Your task to perform on an android device: Open notification settings Image 0: 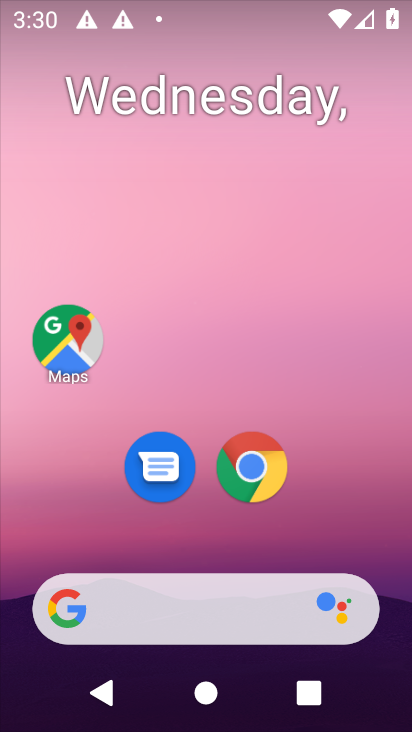
Step 0: drag from (27, 690) to (104, 327)
Your task to perform on an android device: Open notification settings Image 1: 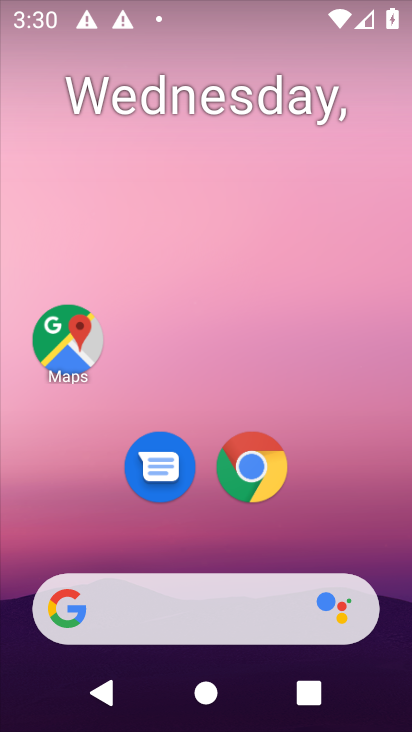
Step 1: drag from (48, 711) to (77, 115)
Your task to perform on an android device: Open notification settings Image 2: 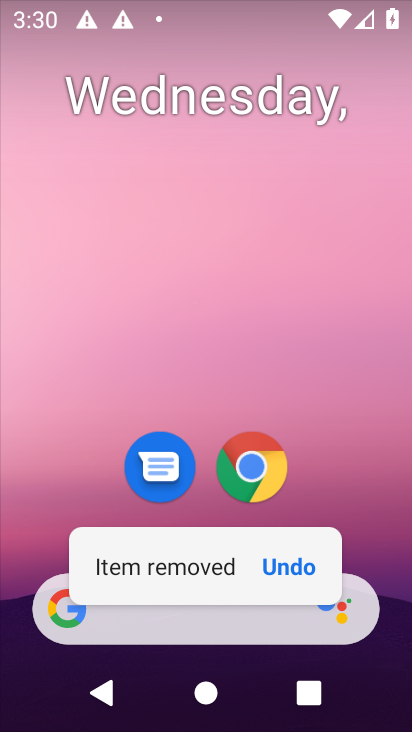
Step 2: drag from (25, 688) to (95, 323)
Your task to perform on an android device: Open notification settings Image 3: 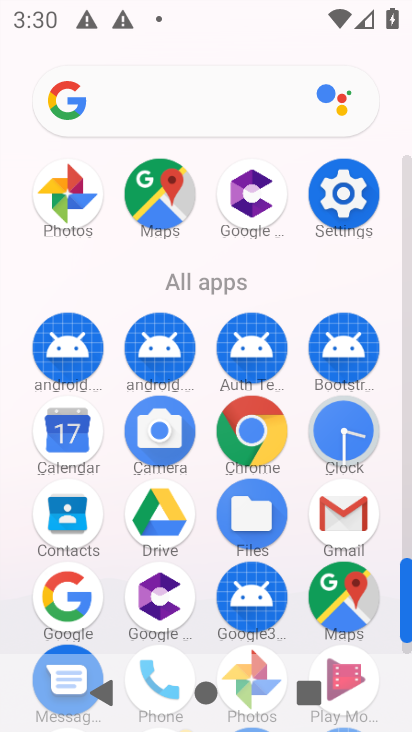
Step 3: click (362, 203)
Your task to perform on an android device: Open notification settings Image 4: 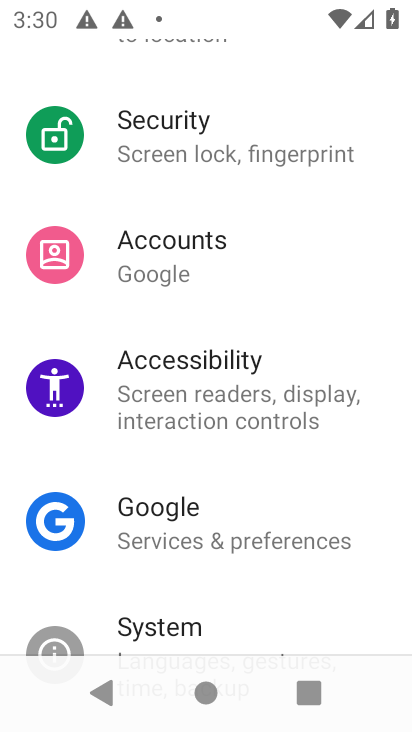
Step 4: drag from (368, 539) to (301, 165)
Your task to perform on an android device: Open notification settings Image 5: 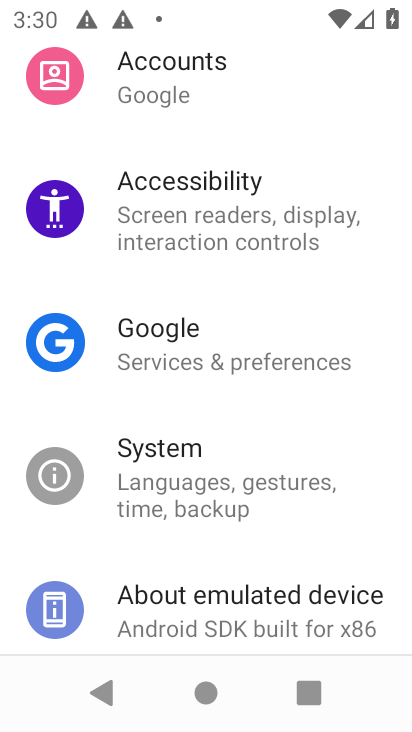
Step 5: drag from (314, 69) to (329, 705)
Your task to perform on an android device: Open notification settings Image 6: 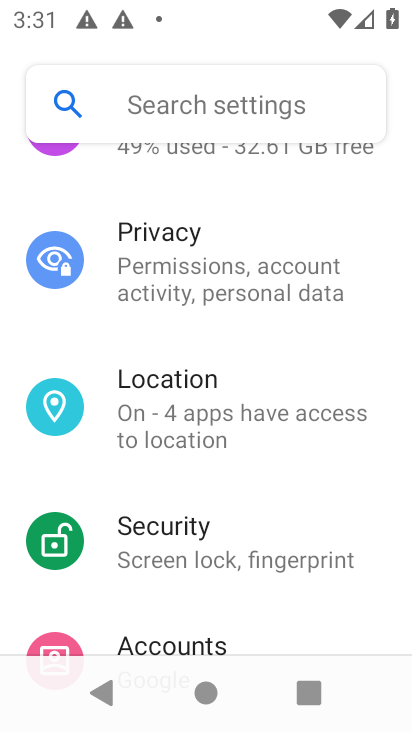
Step 6: drag from (358, 262) to (321, 681)
Your task to perform on an android device: Open notification settings Image 7: 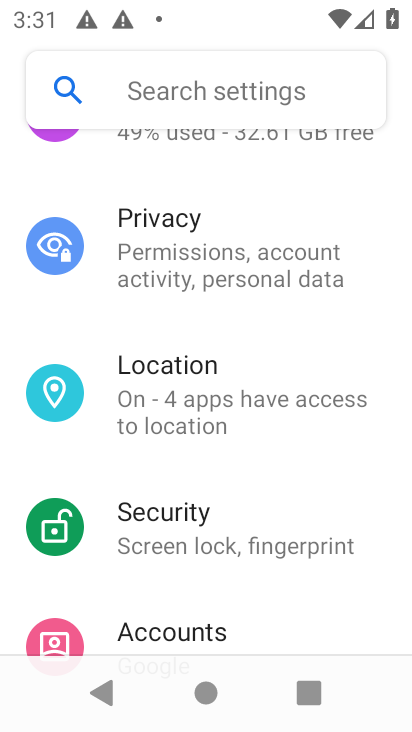
Step 7: drag from (332, 156) to (223, 714)
Your task to perform on an android device: Open notification settings Image 8: 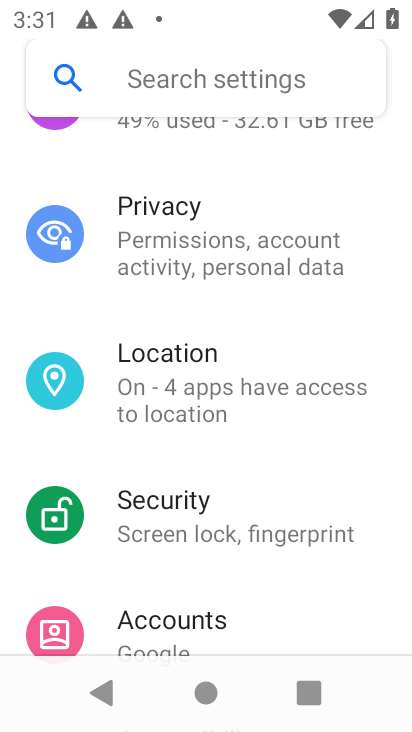
Step 8: drag from (278, 154) to (286, 706)
Your task to perform on an android device: Open notification settings Image 9: 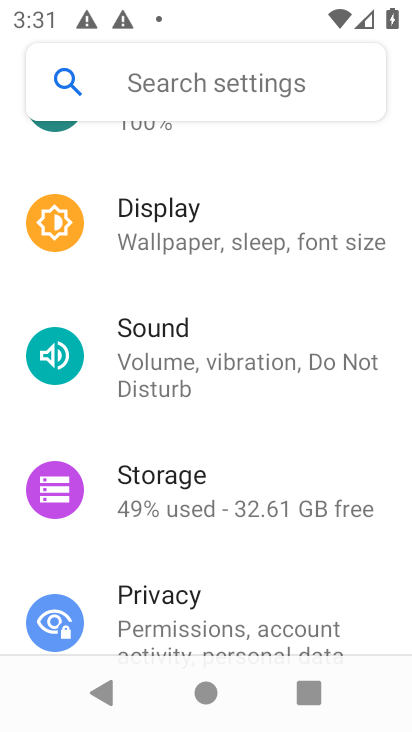
Step 9: drag from (280, 181) to (310, 716)
Your task to perform on an android device: Open notification settings Image 10: 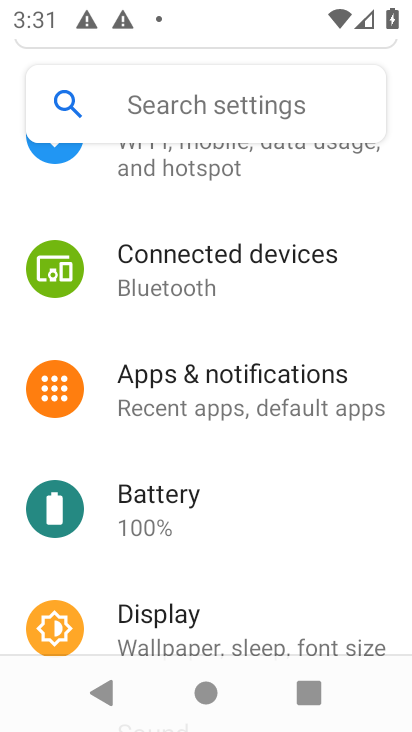
Step 10: drag from (343, 170) to (374, 725)
Your task to perform on an android device: Open notification settings Image 11: 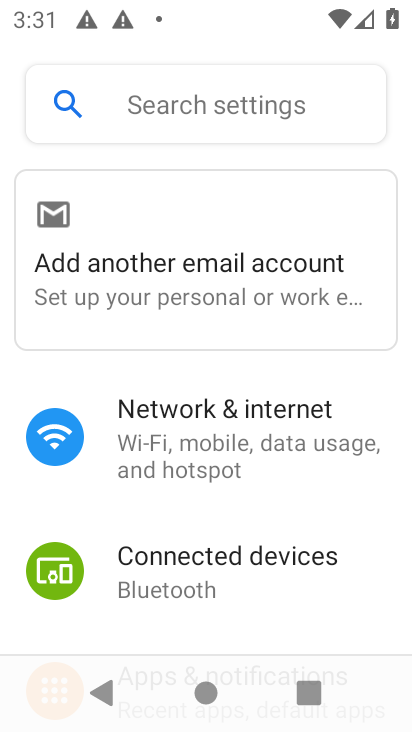
Step 11: drag from (290, 612) to (296, 252)
Your task to perform on an android device: Open notification settings Image 12: 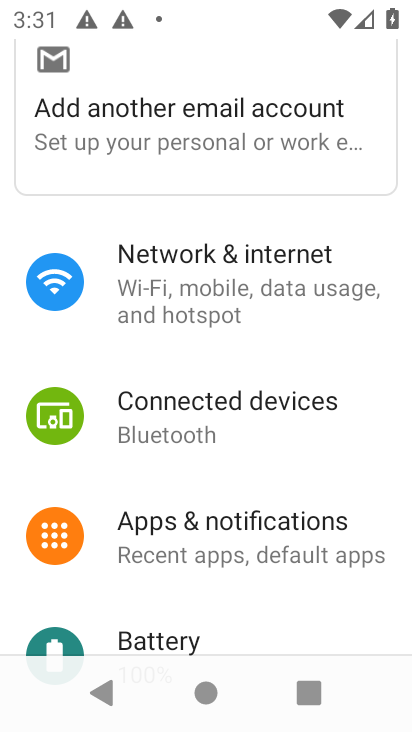
Step 12: click (265, 524)
Your task to perform on an android device: Open notification settings Image 13: 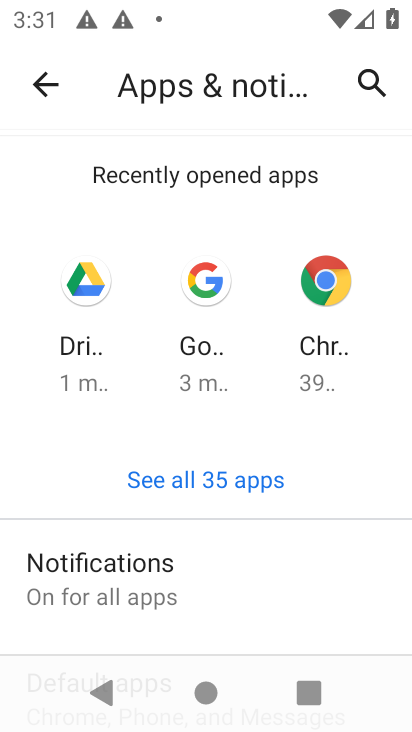
Step 13: task complete